Your task to perform on an android device: change keyboard looks Image 0: 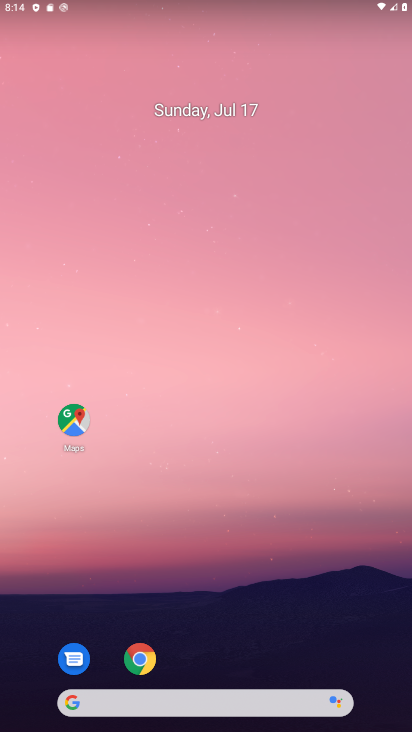
Step 0: drag from (195, 701) to (201, 64)
Your task to perform on an android device: change keyboard looks Image 1: 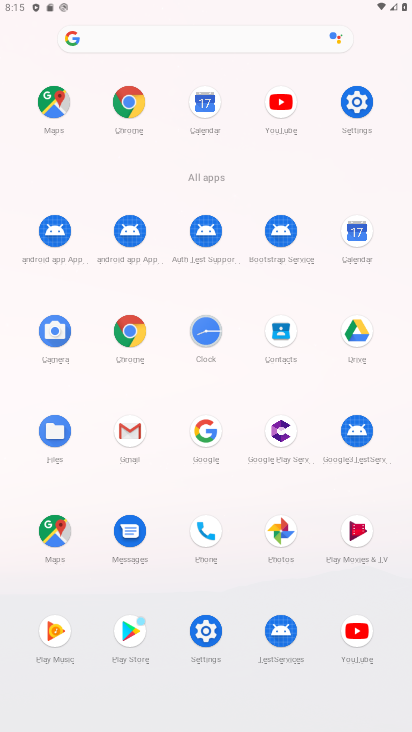
Step 1: click (357, 103)
Your task to perform on an android device: change keyboard looks Image 2: 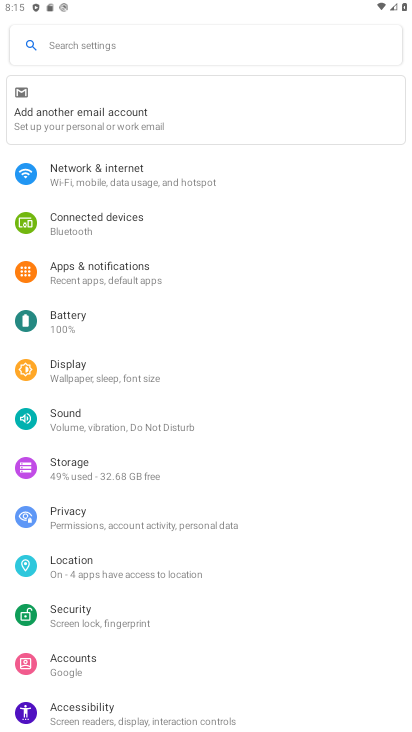
Step 2: drag from (113, 397) to (179, 288)
Your task to perform on an android device: change keyboard looks Image 3: 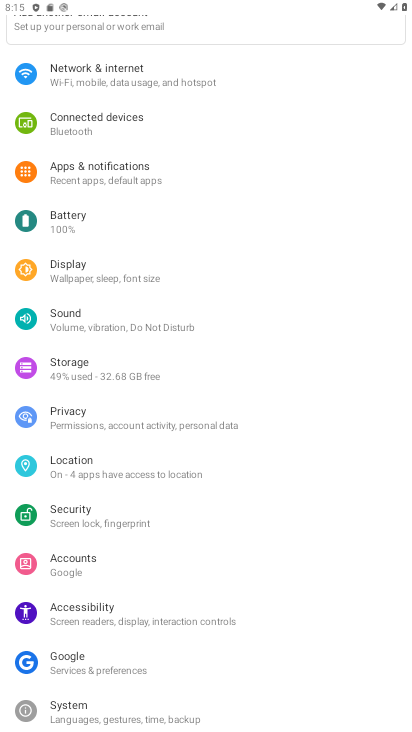
Step 3: drag from (124, 438) to (215, 306)
Your task to perform on an android device: change keyboard looks Image 4: 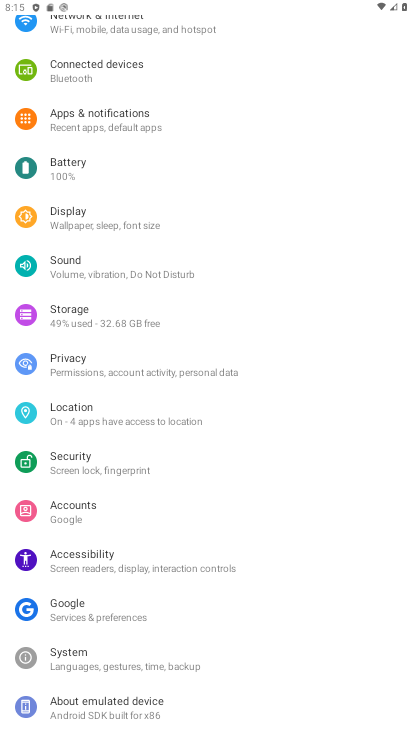
Step 4: click (103, 667)
Your task to perform on an android device: change keyboard looks Image 5: 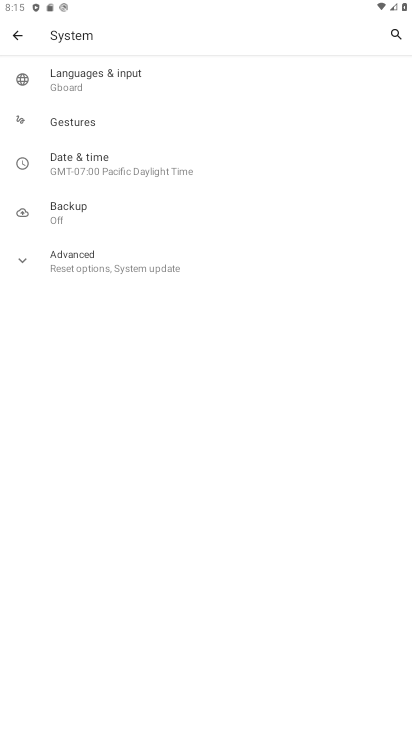
Step 5: click (79, 90)
Your task to perform on an android device: change keyboard looks Image 6: 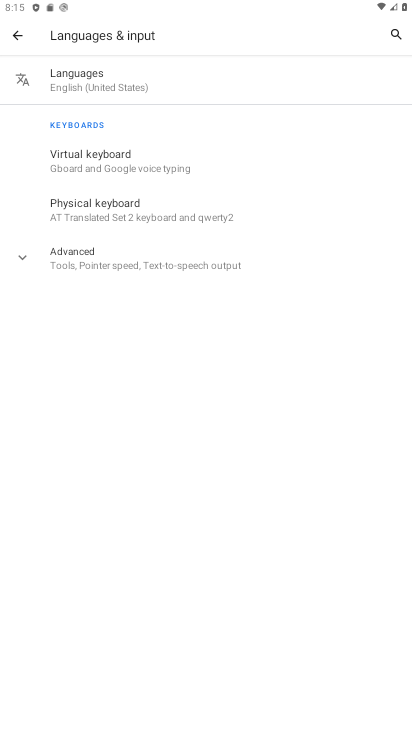
Step 6: click (99, 159)
Your task to perform on an android device: change keyboard looks Image 7: 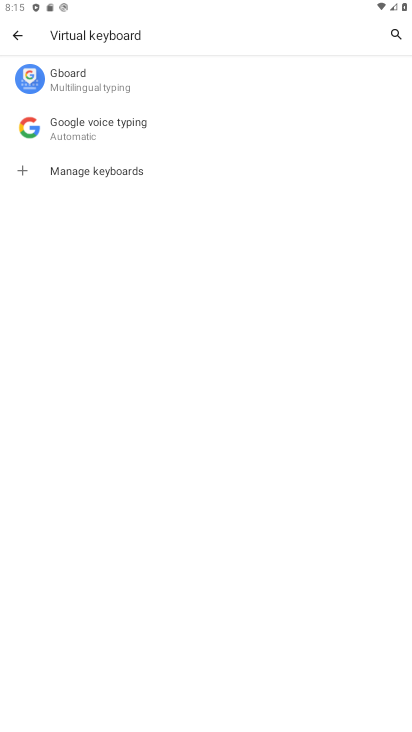
Step 7: click (88, 86)
Your task to perform on an android device: change keyboard looks Image 8: 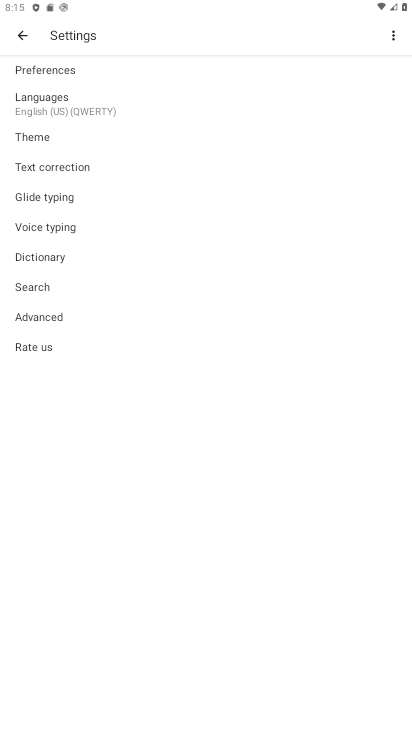
Step 8: click (41, 138)
Your task to perform on an android device: change keyboard looks Image 9: 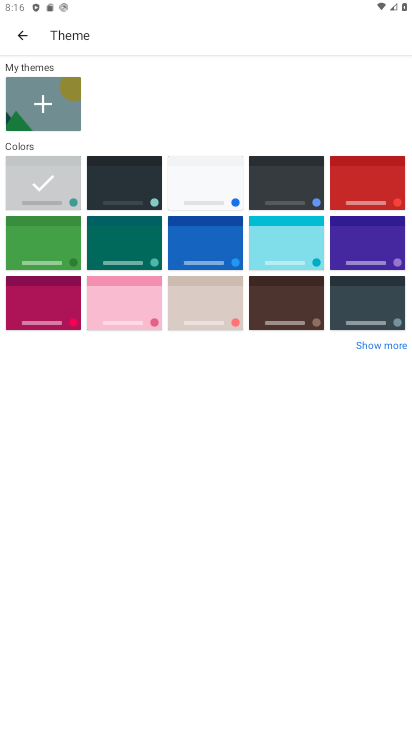
Step 9: click (140, 243)
Your task to perform on an android device: change keyboard looks Image 10: 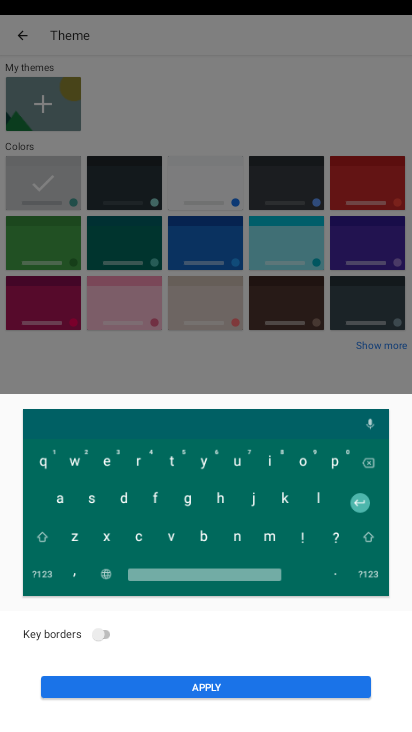
Step 10: click (94, 629)
Your task to perform on an android device: change keyboard looks Image 11: 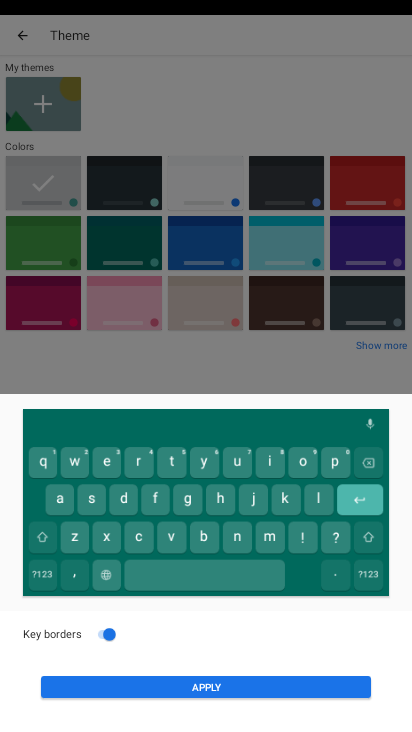
Step 11: click (228, 687)
Your task to perform on an android device: change keyboard looks Image 12: 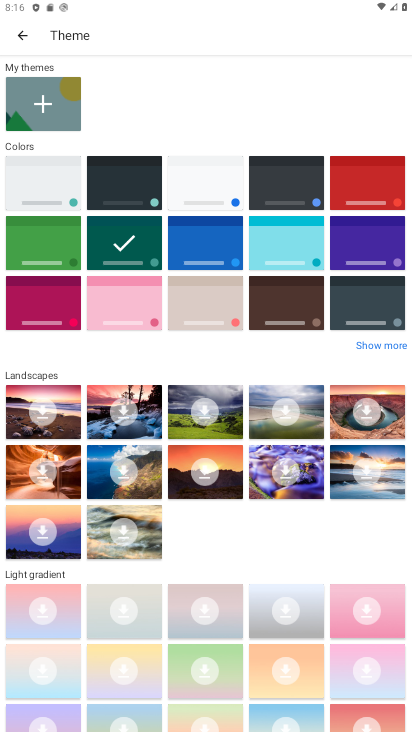
Step 12: task complete